Your task to perform on an android device: turn on wifi Image 0: 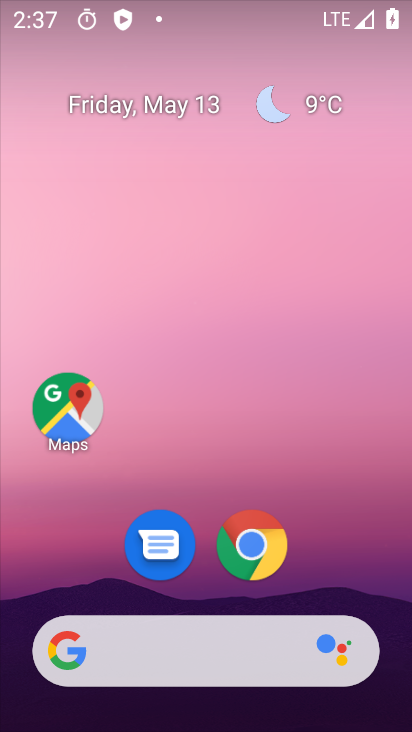
Step 0: drag from (269, 12) to (255, 384)
Your task to perform on an android device: turn on wifi Image 1: 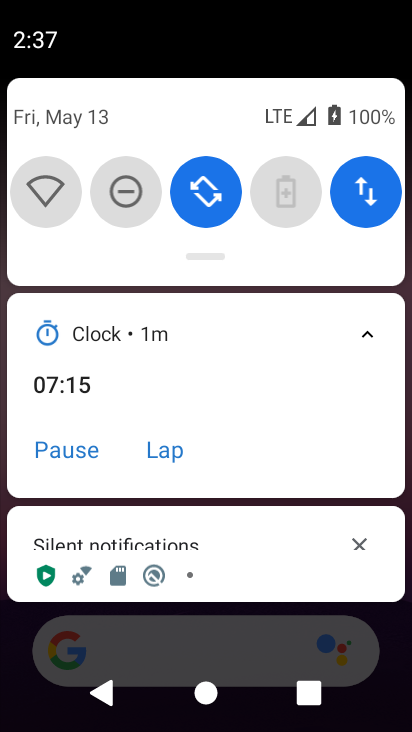
Step 1: click (46, 188)
Your task to perform on an android device: turn on wifi Image 2: 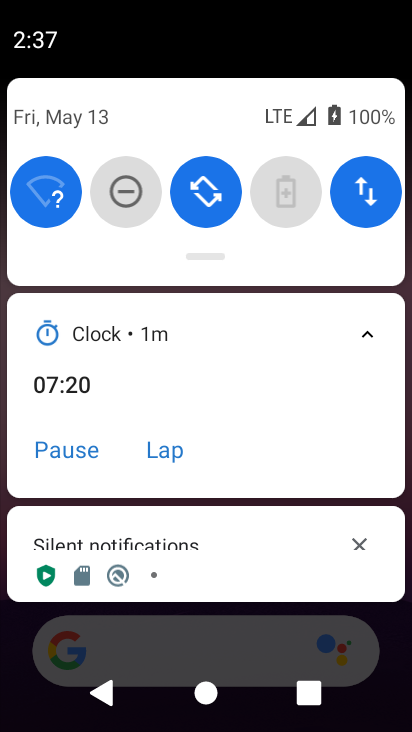
Step 2: task complete